Your task to perform on an android device: Go to notification settings Image 0: 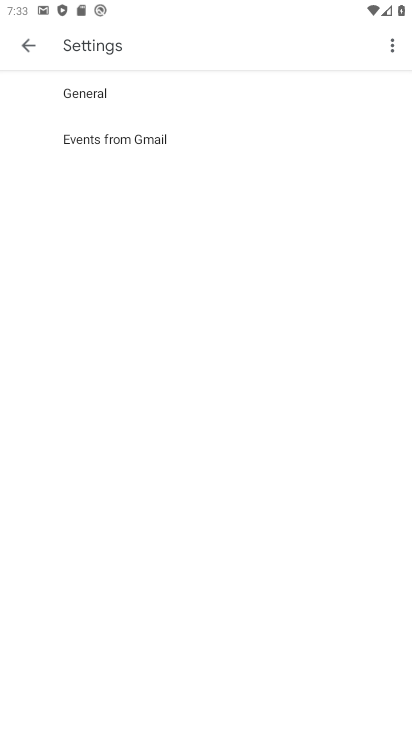
Step 0: press home button
Your task to perform on an android device: Go to notification settings Image 1: 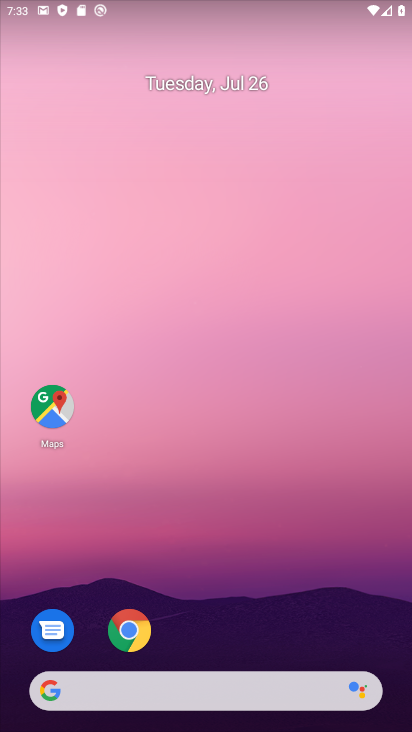
Step 1: drag from (222, 634) to (255, 80)
Your task to perform on an android device: Go to notification settings Image 2: 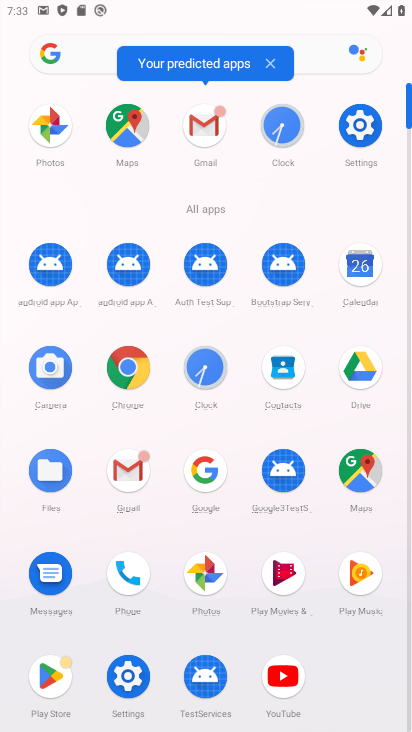
Step 2: click (342, 128)
Your task to perform on an android device: Go to notification settings Image 3: 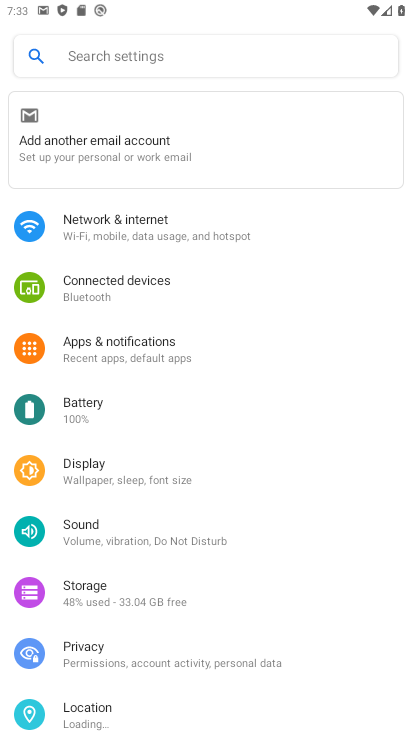
Step 3: click (184, 334)
Your task to perform on an android device: Go to notification settings Image 4: 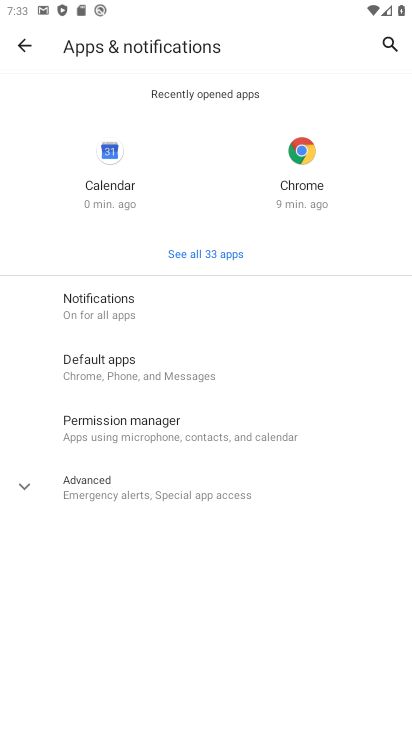
Step 4: click (140, 319)
Your task to perform on an android device: Go to notification settings Image 5: 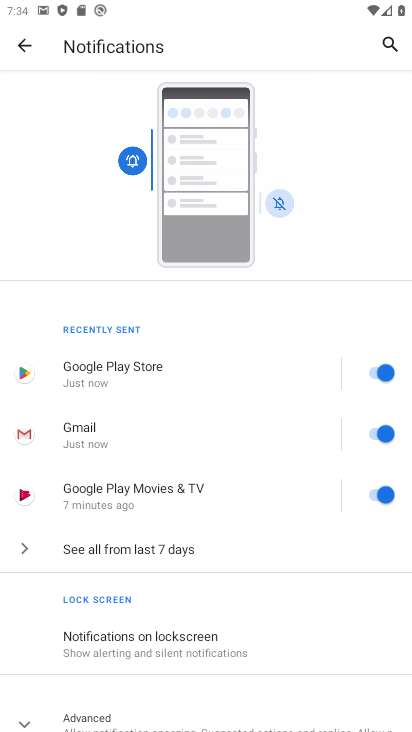
Step 5: task complete